Your task to perform on an android device: turn off notifications in google photos Image 0: 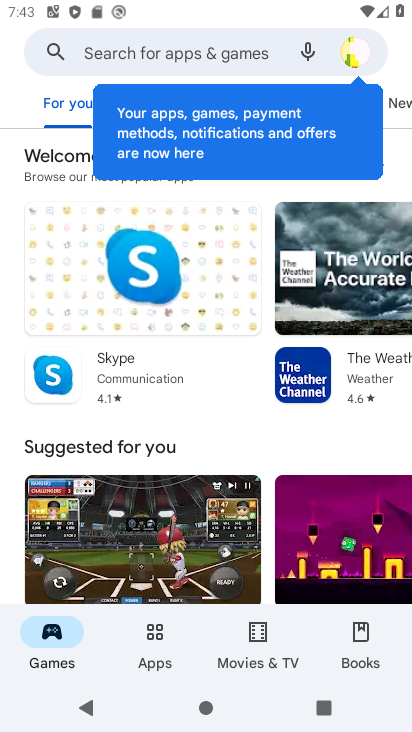
Step 0: press home button
Your task to perform on an android device: turn off notifications in google photos Image 1: 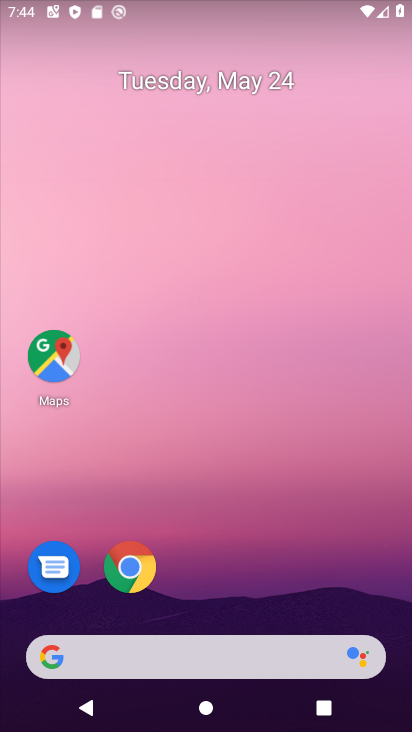
Step 1: drag from (229, 602) to (318, 120)
Your task to perform on an android device: turn off notifications in google photos Image 2: 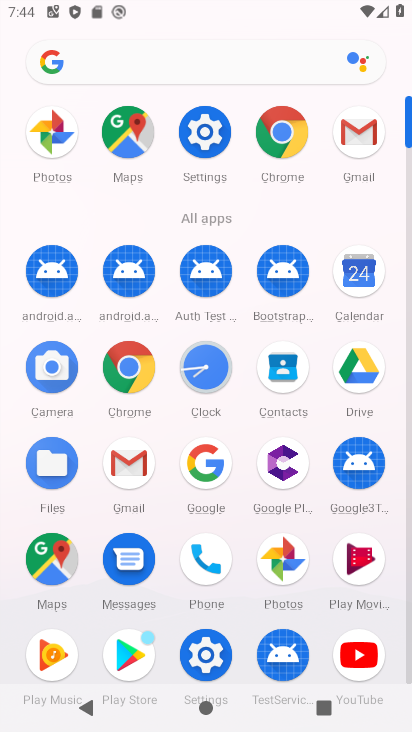
Step 2: click (53, 129)
Your task to perform on an android device: turn off notifications in google photos Image 3: 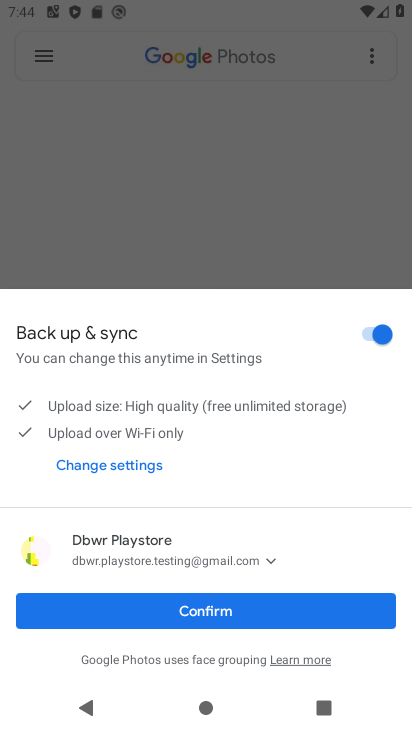
Step 3: click (141, 469)
Your task to perform on an android device: turn off notifications in google photos Image 4: 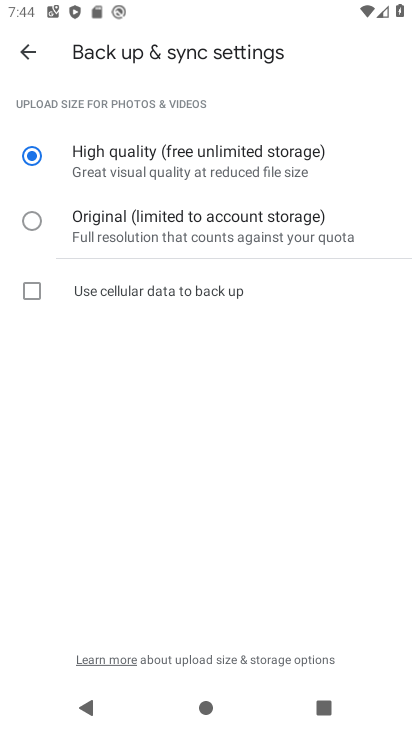
Step 4: click (26, 56)
Your task to perform on an android device: turn off notifications in google photos Image 5: 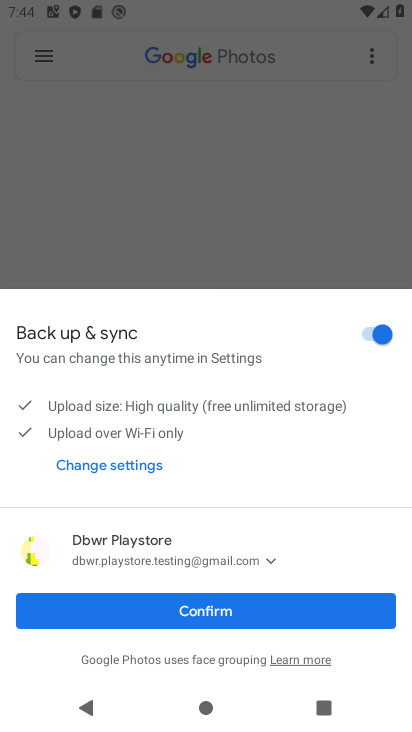
Step 5: click (176, 603)
Your task to perform on an android device: turn off notifications in google photos Image 6: 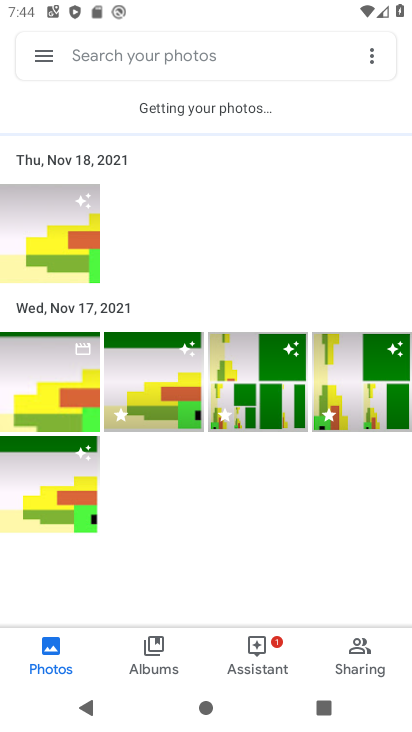
Step 6: click (41, 53)
Your task to perform on an android device: turn off notifications in google photos Image 7: 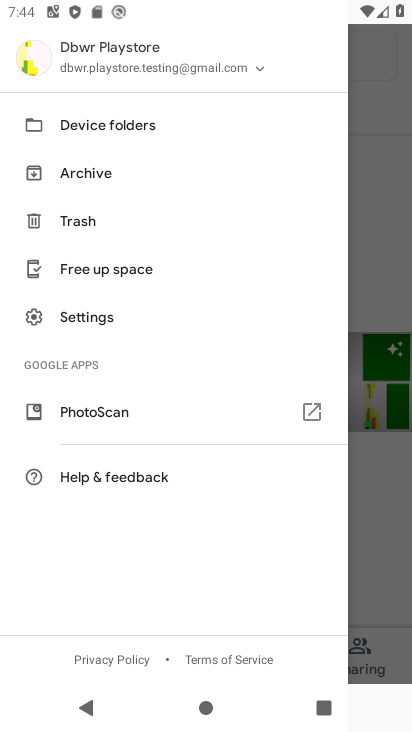
Step 7: click (100, 325)
Your task to perform on an android device: turn off notifications in google photos Image 8: 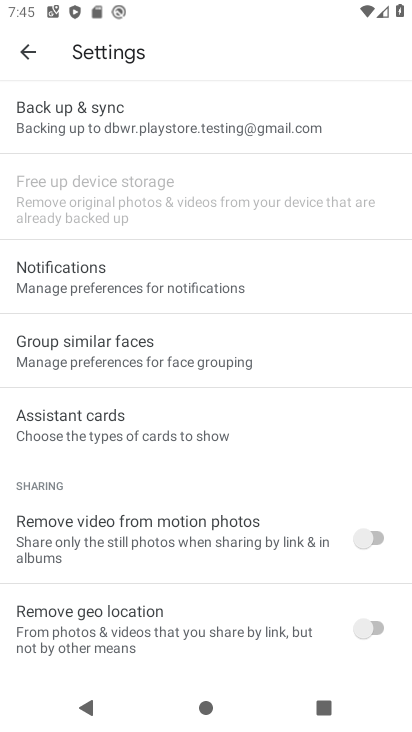
Step 8: click (91, 295)
Your task to perform on an android device: turn off notifications in google photos Image 9: 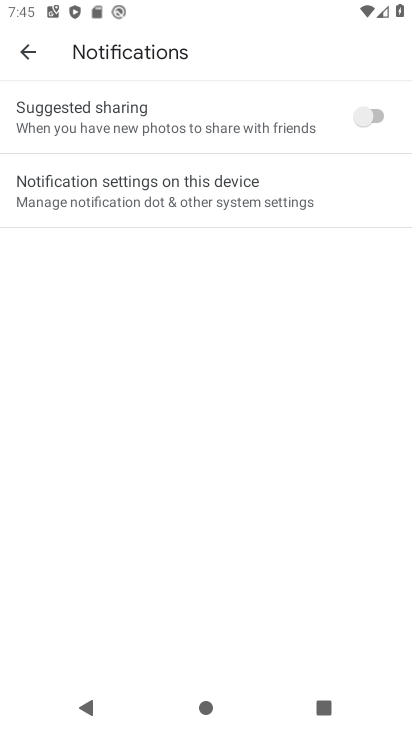
Step 9: click (92, 180)
Your task to perform on an android device: turn off notifications in google photos Image 10: 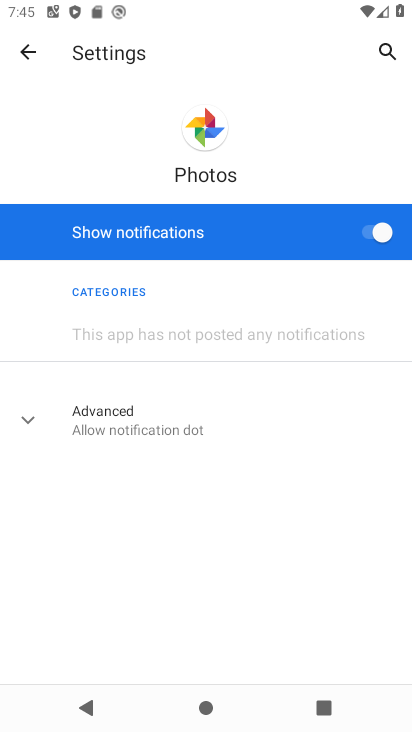
Step 10: click (369, 231)
Your task to perform on an android device: turn off notifications in google photos Image 11: 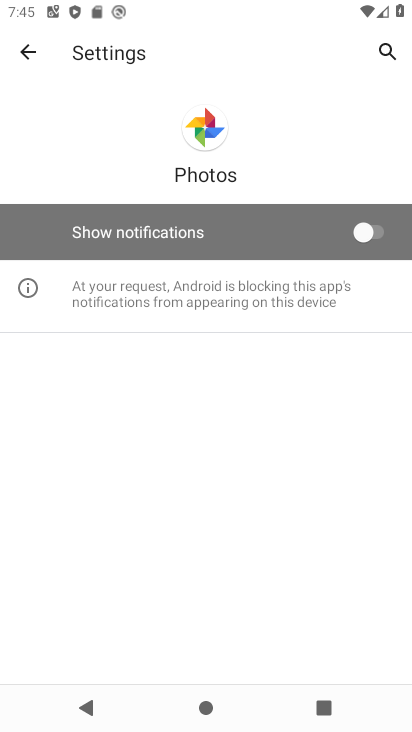
Step 11: task complete